Your task to perform on an android device: Open Google Chrome Image 0: 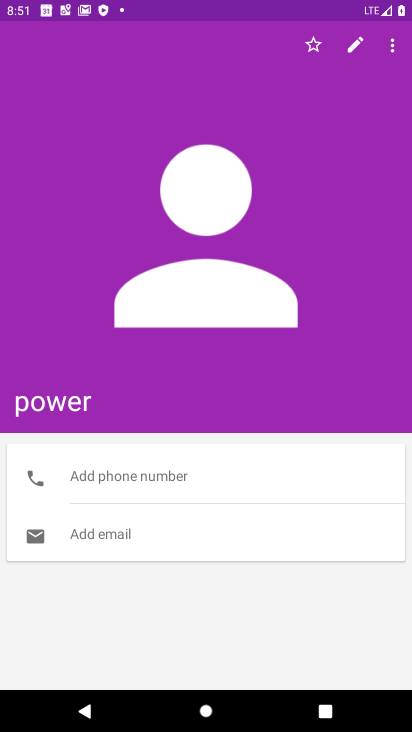
Step 0: press home button
Your task to perform on an android device: Open Google Chrome Image 1: 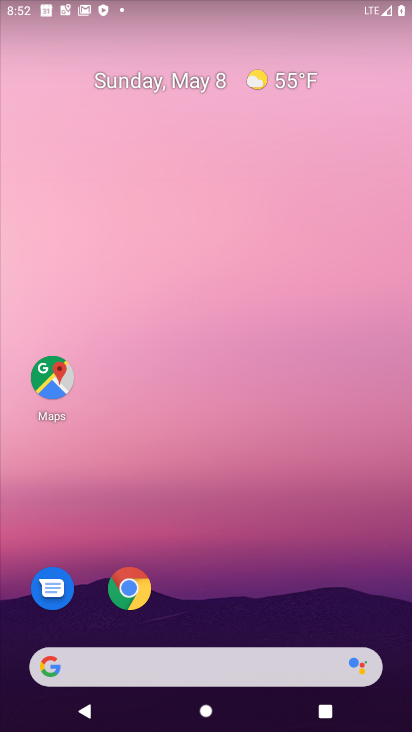
Step 1: click (120, 599)
Your task to perform on an android device: Open Google Chrome Image 2: 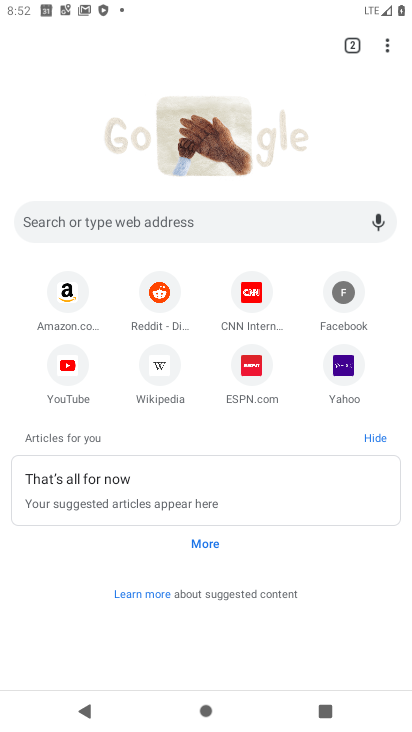
Step 2: task complete